Your task to perform on an android device: Is it going to rain tomorrow? Image 0: 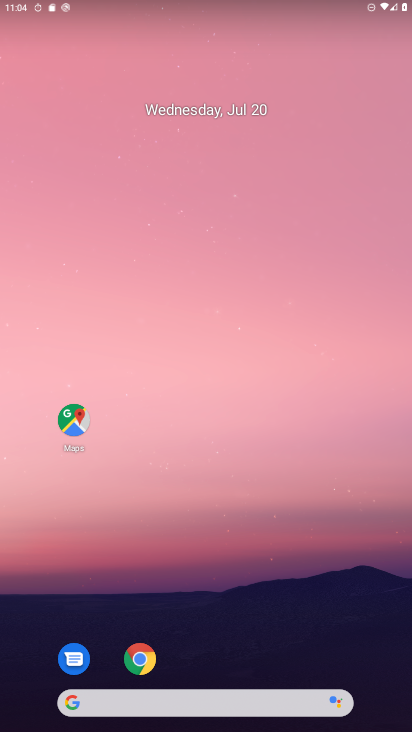
Step 0: drag from (278, 553) to (168, 49)
Your task to perform on an android device: Is it going to rain tomorrow? Image 1: 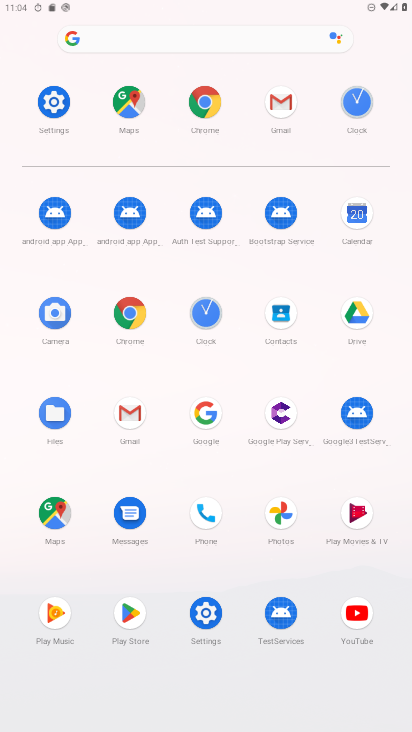
Step 1: click (208, 102)
Your task to perform on an android device: Is it going to rain tomorrow? Image 2: 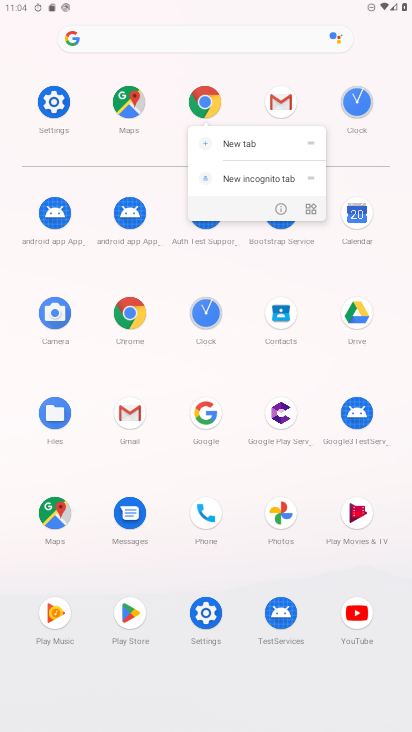
Step 2: click (199, 97)
Your task to perform on an android device: Is it going to rain tomorrow? Image 3: 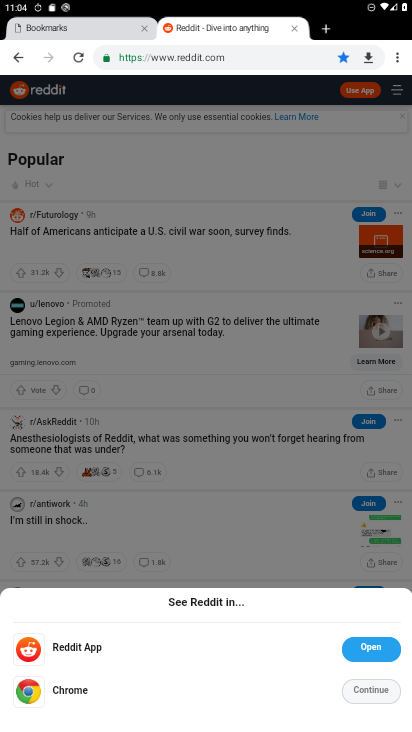
Step 3: click (225, 54)
Your task to perform on an android device: Is it going to rain tomorrow? Image 4: 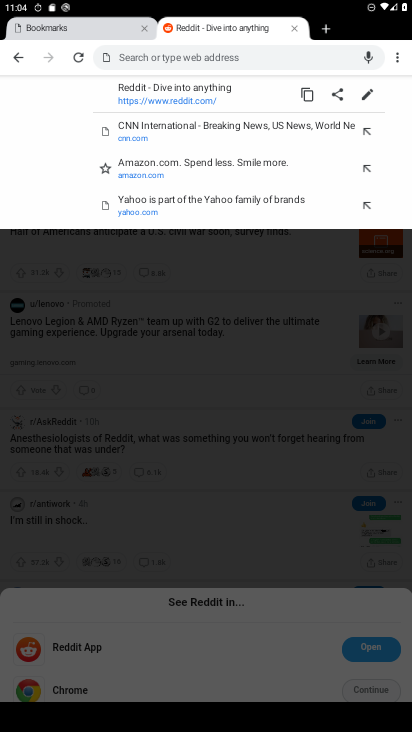
Step 4: type "weather"
Your task to perform on an android device: Is it going to rain tomorrow? Image 5: 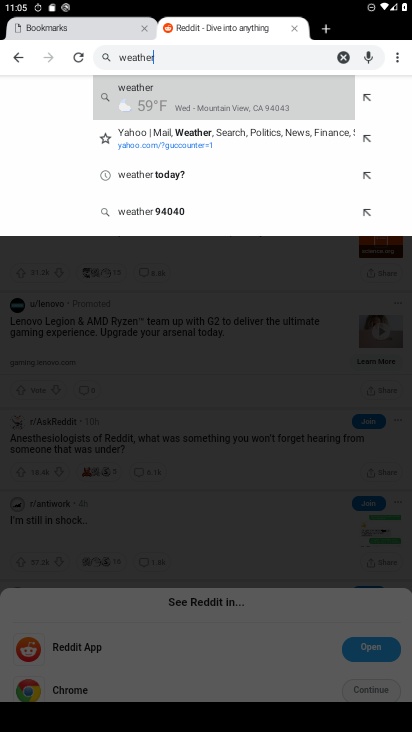
Step 5: click (143, 117)
Your task to perform on an android device: Is it going to rain tomorrow? Image 6: 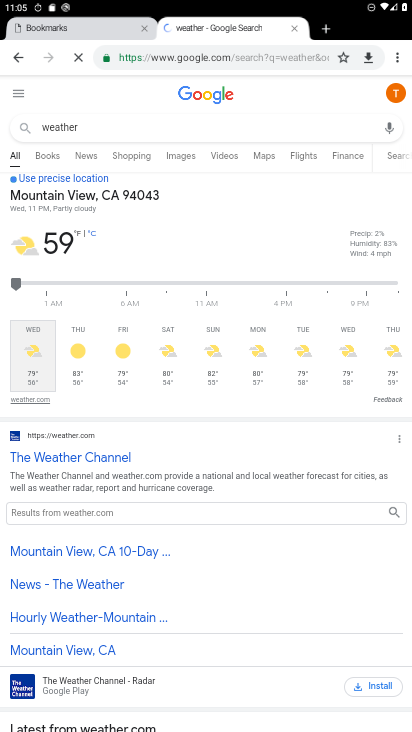
Step 6: click (87, 353)
Your task to perform on an android device: Is it going to rain tomorrow? Image 7: 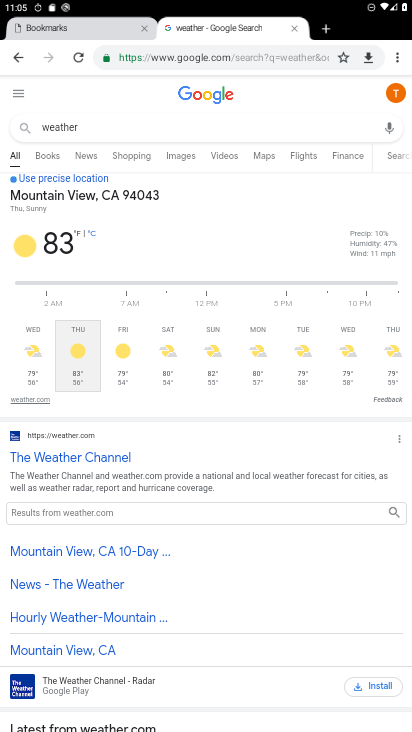
Step 7: task complete